Your task to perform on an android device: Open the calendar app, open the side menu, and click the "Day" option Image 0: 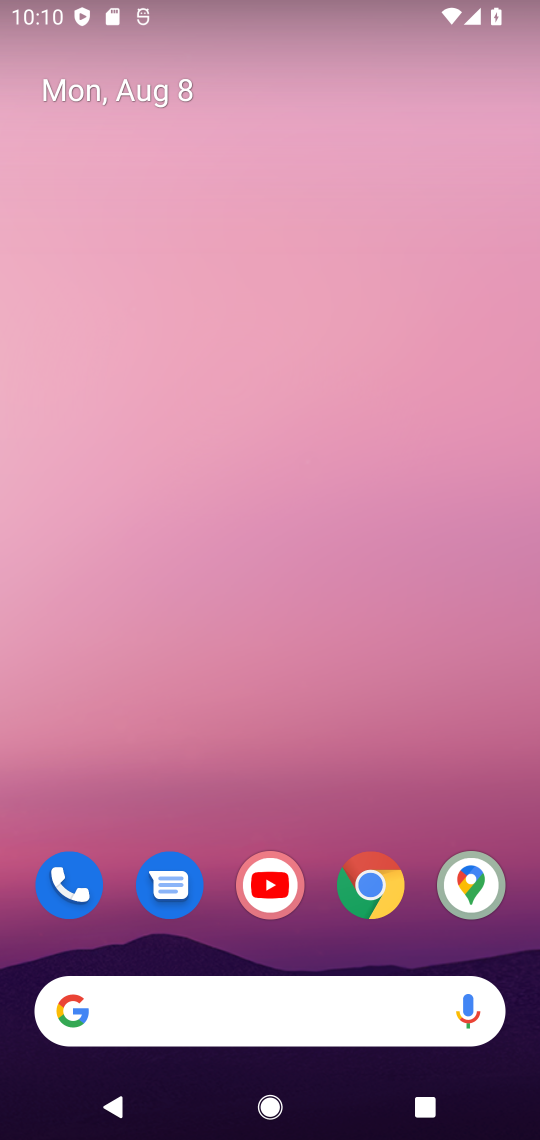
Step 0: drag from (277, 1049) to (40, 1068)
Your task to perform on an android device: Open the calendar app, open the side menu, and click the "Day" option Image 1: 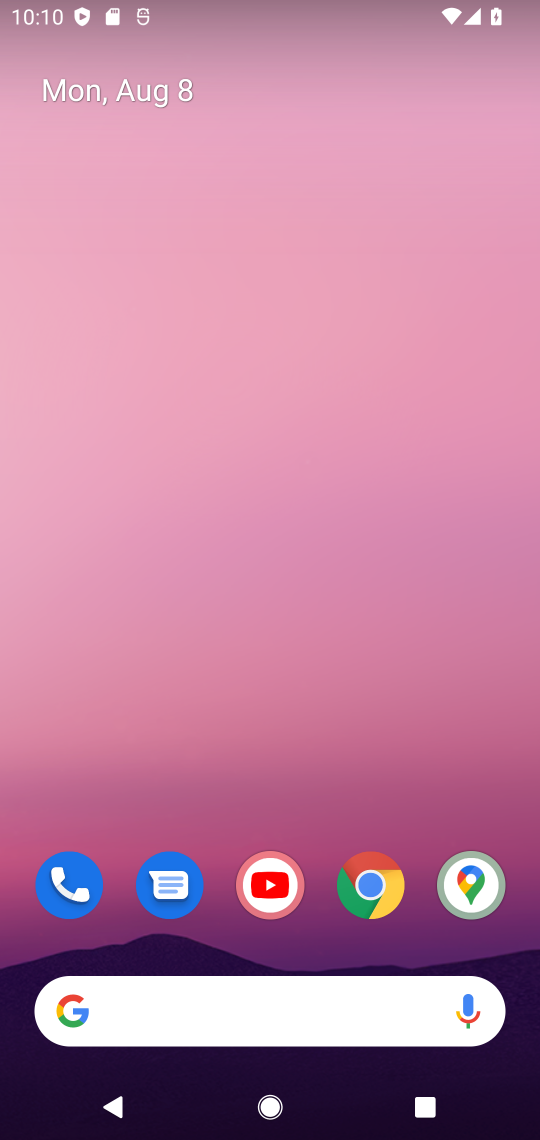
Step 1: drag from (358, 875) to (214, 197)
Your task to perform on an android device: Open the calendar app, open the side menu, and click the "Day" option Image 2: 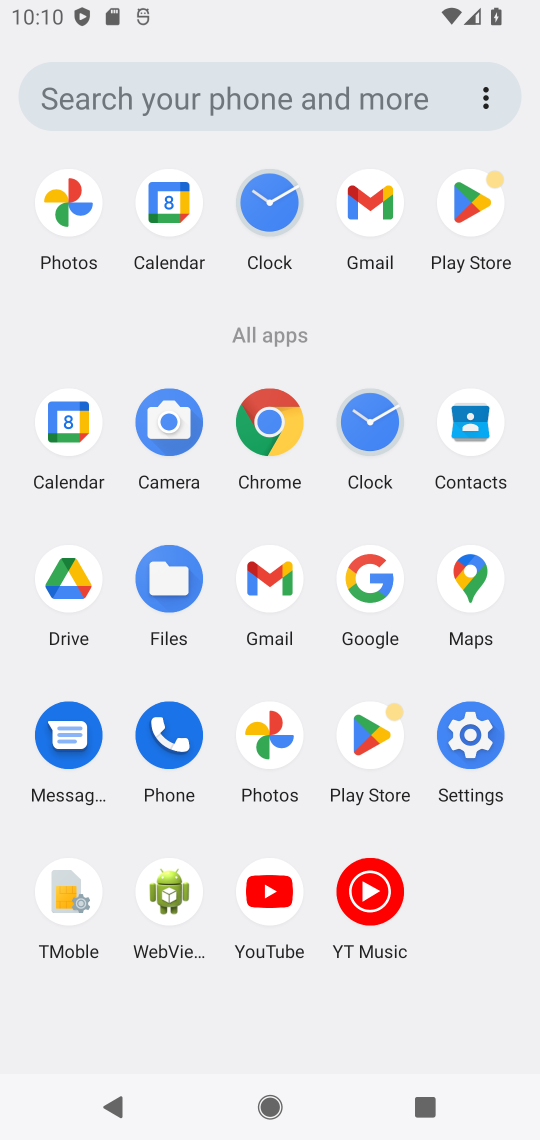
Step 2: click (88, 432)
Your task to perform on an android device: Open the calendar app, open the side menu, and click the "Day" option Image 3: 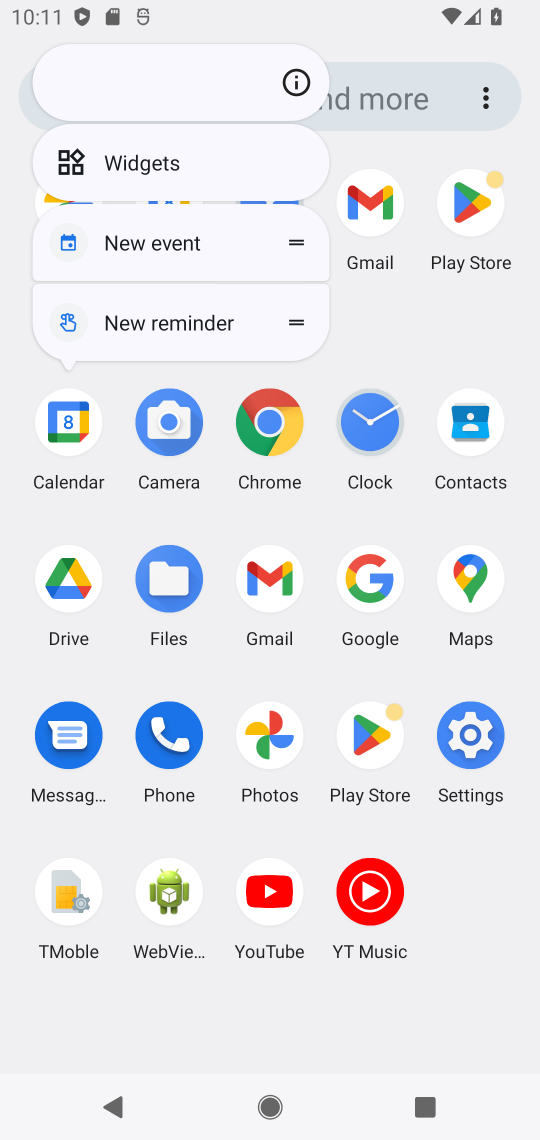
Step 3: click (65, 431)
Your task to perform on an android device: Open the calendar app, open the side menu, and click the "Day" option Image 4: 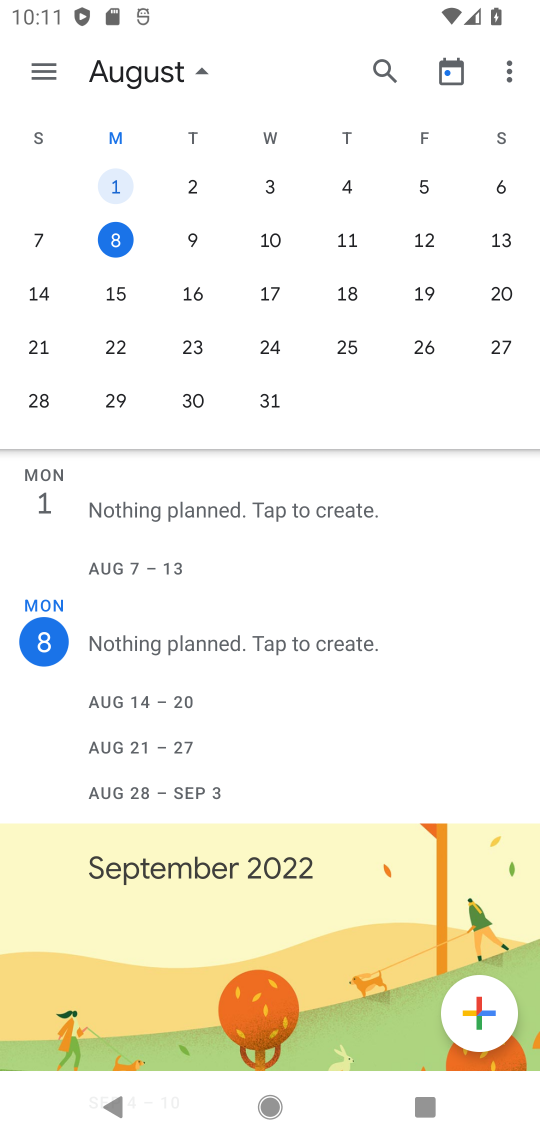
Step 4: click (39, 60)
Your task to perform on an android device: Open the calendar app, open the side menu, and click the "Day" option Image 5: 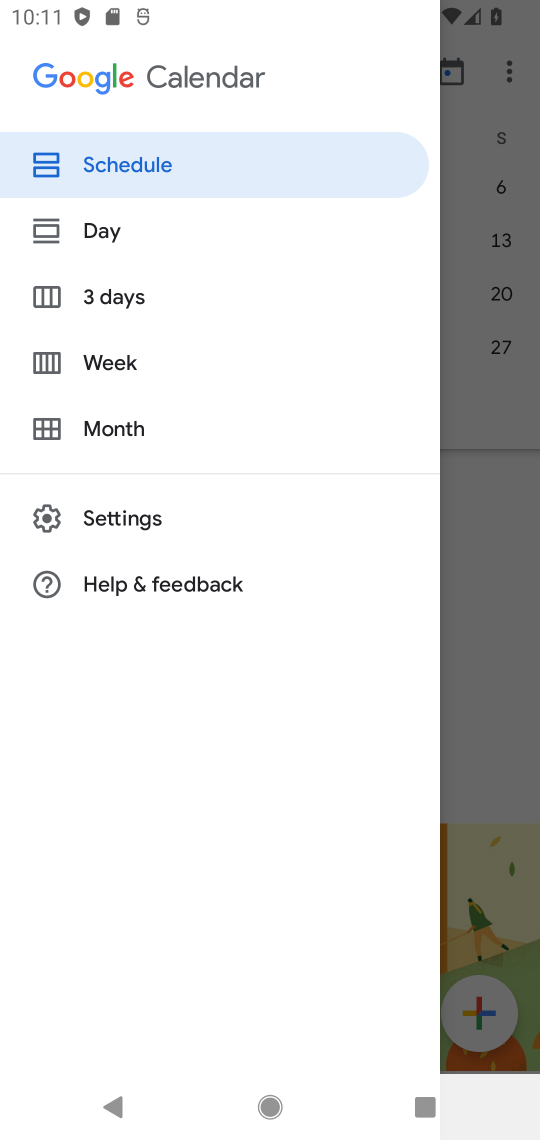
Step 5: click (123, 226)
Your task to perform on an android device: Open the calendar app, open the side menu, and click the "Day" option Image 6: 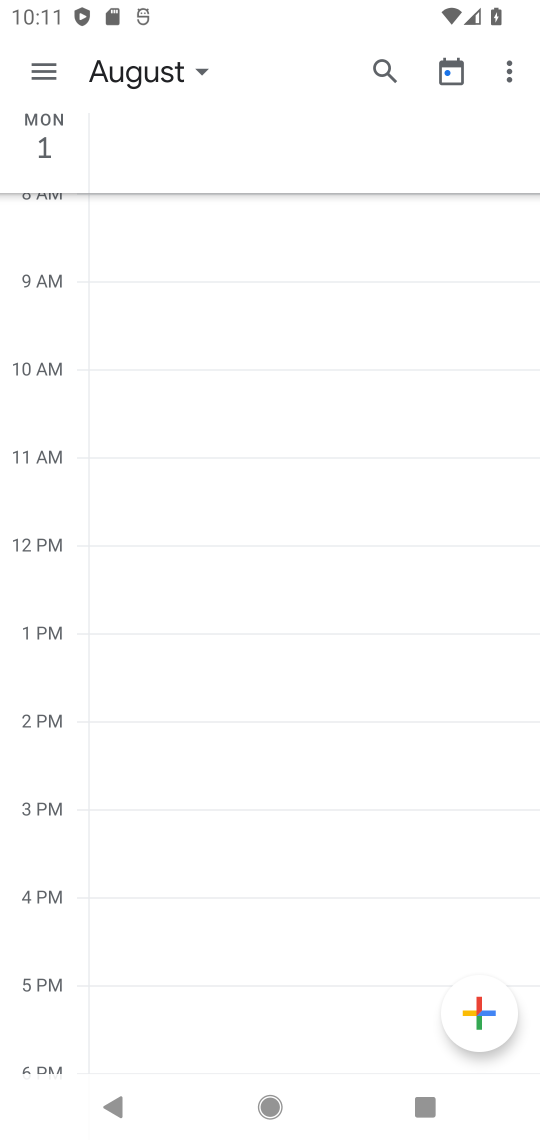
Step 6: task complete